Your task to perform on an android device: Play the last video I watched on Youtube Image 0: 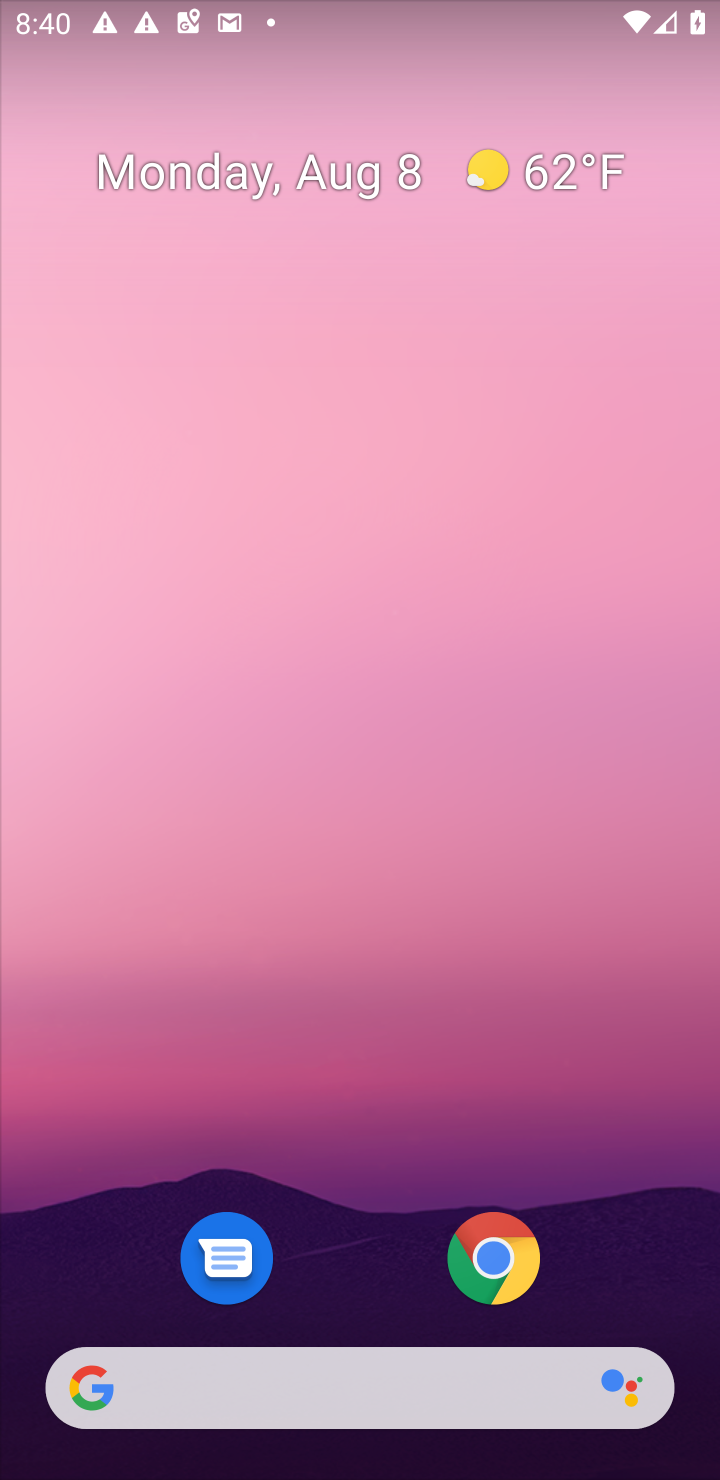
Step 0: drag from (441, 1114) to (559, 504)
Your task to perform on an android device: Play the last video I watched on Youtube Image 1: 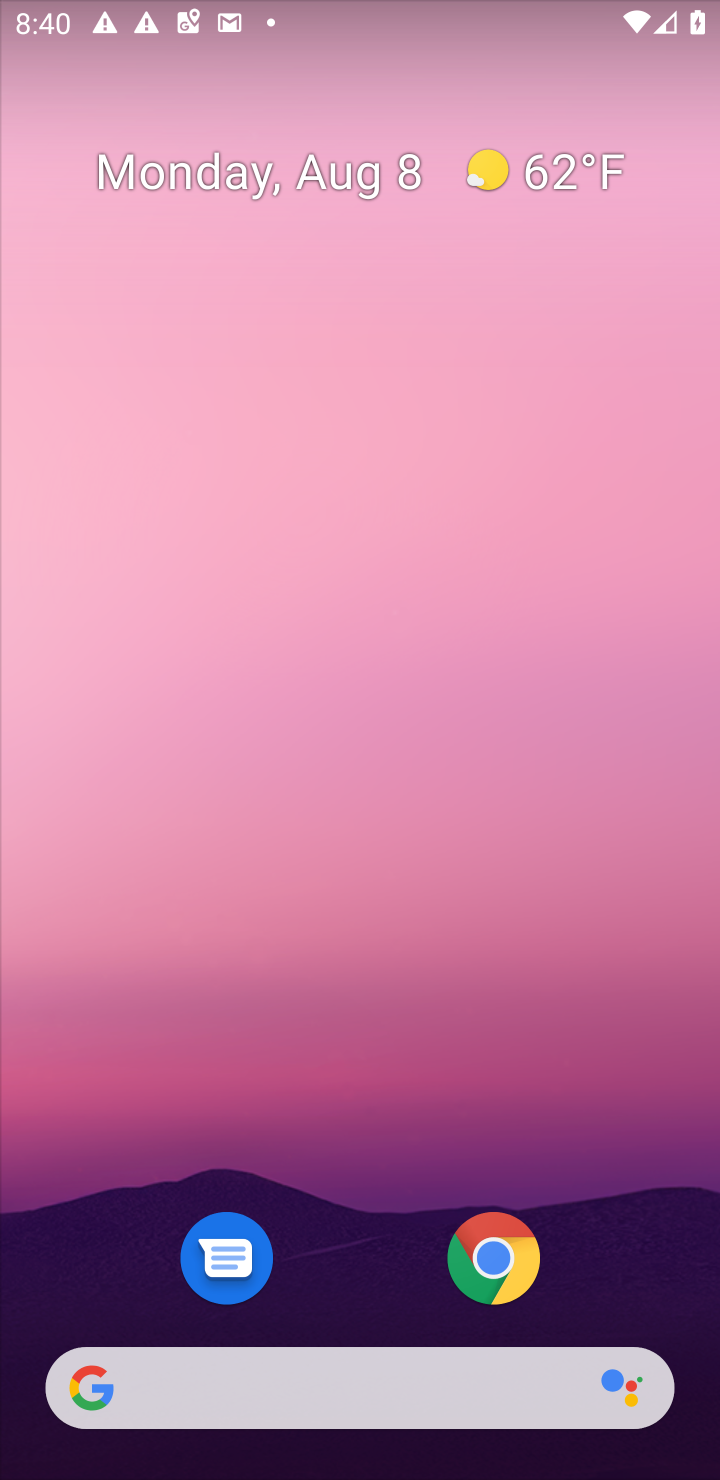
Step 1: drag from (360, 1021) to (456, 359)
Your task to perform on an android device: Play the last video I watched on Youtube Image 2: 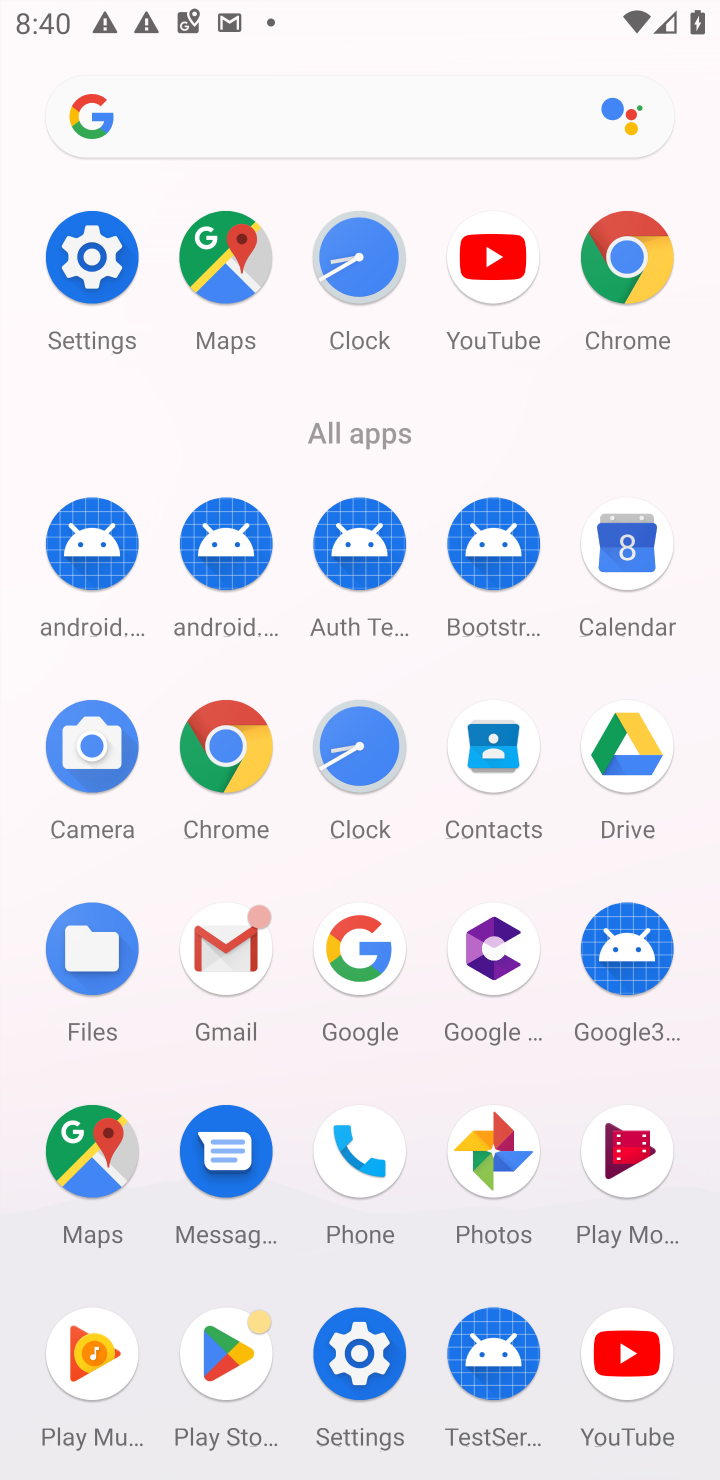
Step 2: click (483, 295)
Your task to perform on an android device: Play the last video I watched on Youtube Image 3: 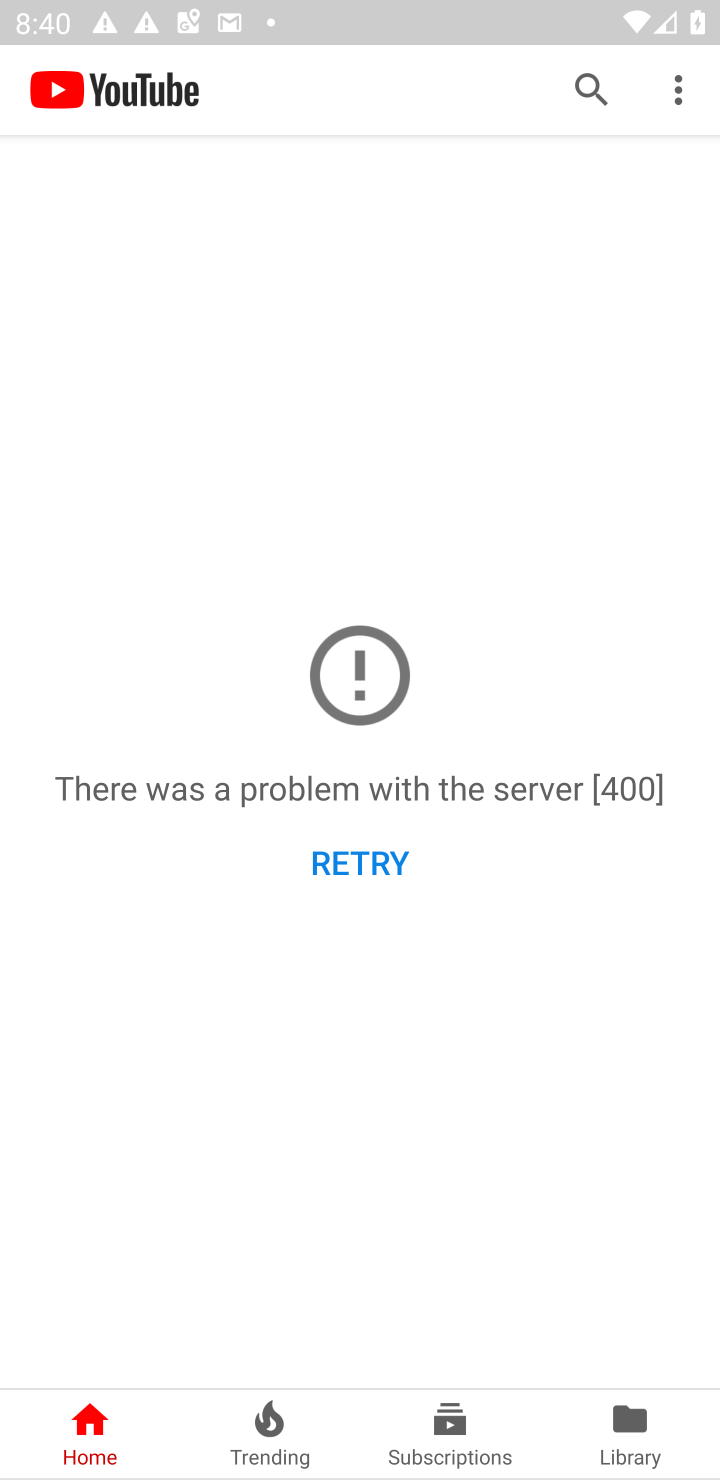
Step 3: task complete